Your task to perform on an android device: Go to ESPN.com Image 0: 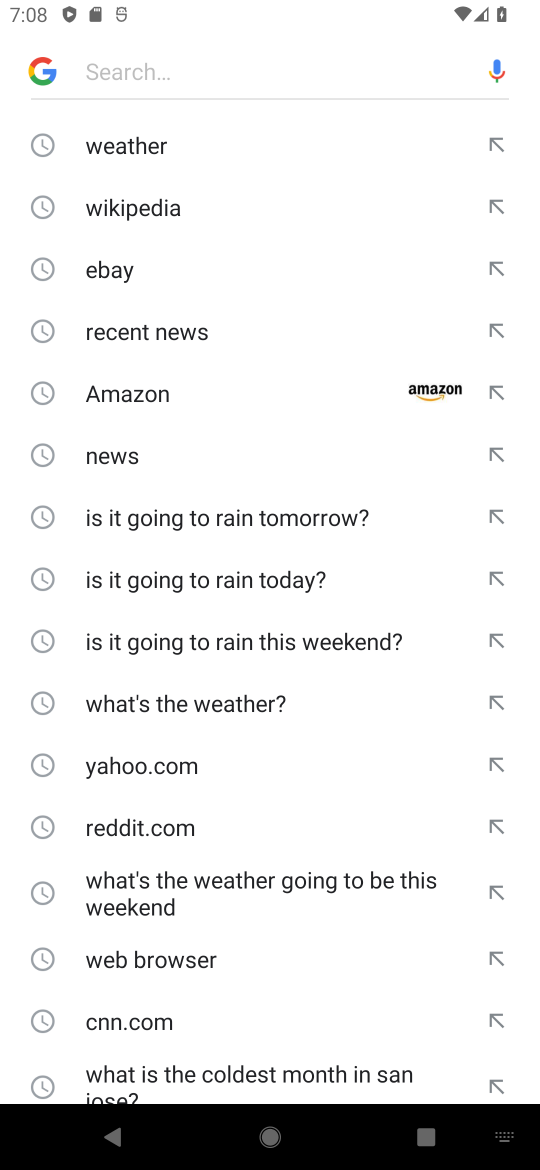
Step 0: press home button
Your task to perform on an android device: Go to ESPN.com Image 1: 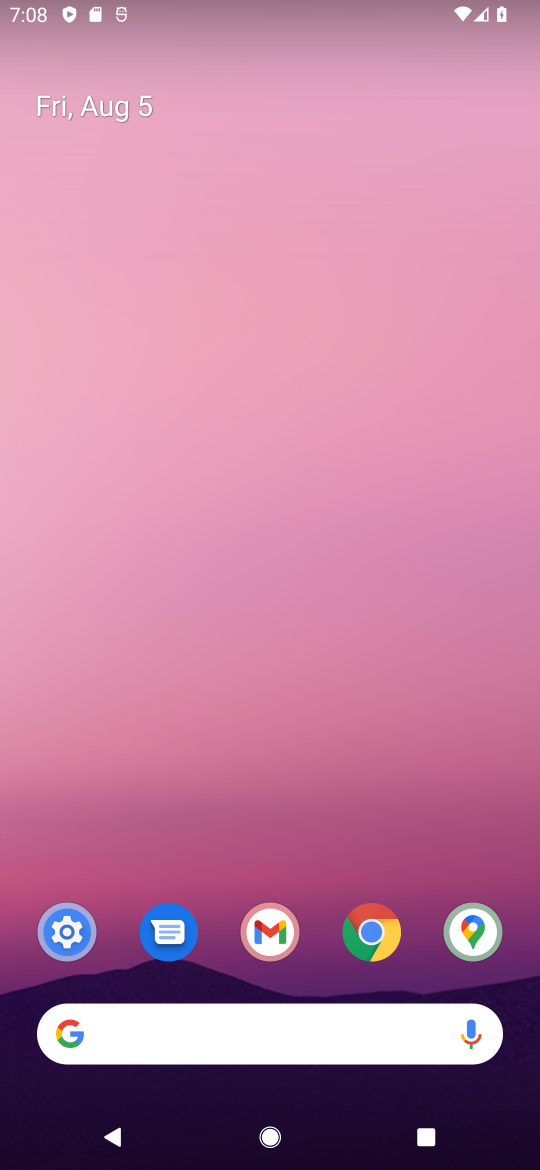
Step 1: drag from (386, 855) to (422, 244)
Your task to perform on an android device: Go to ESPN.com Image 2: 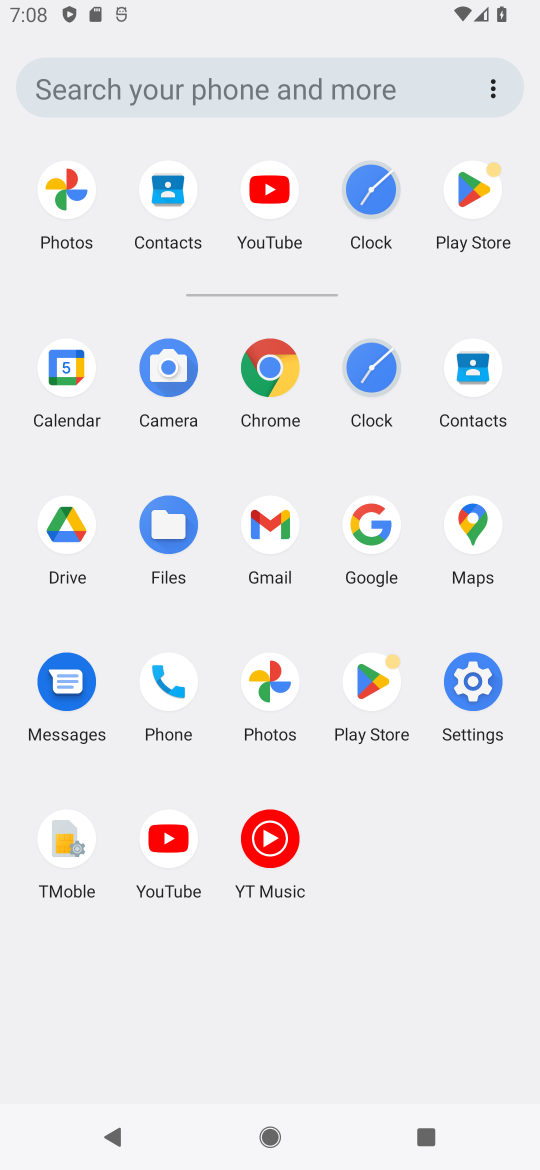
Step 2: click (266, 375)
Your task to perform on an android device: Go to ESPN.com Image 3: 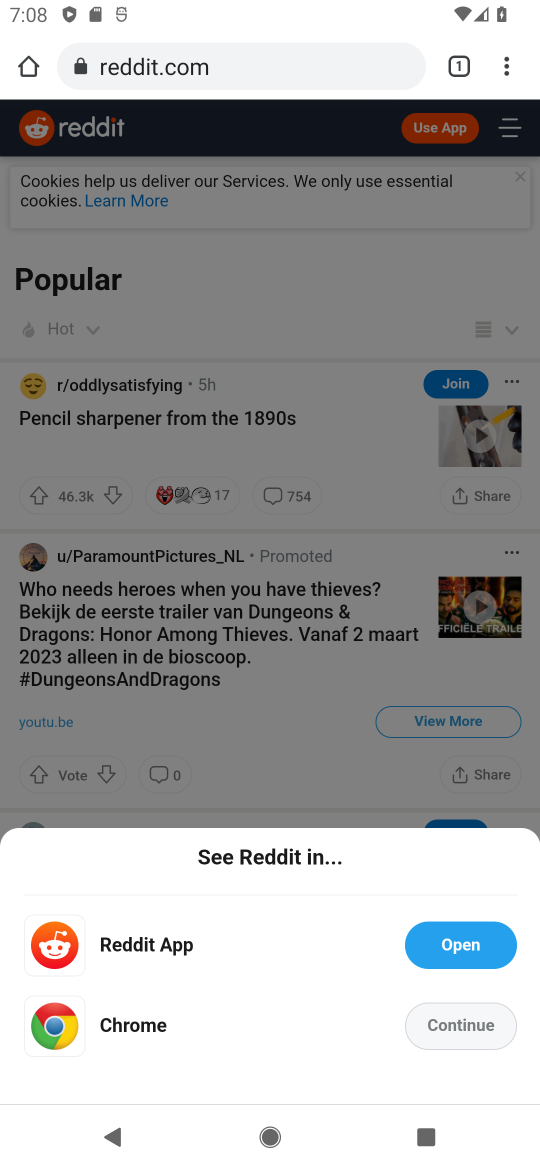
Step 3: click (257, 68)
Your task to perform on an android device: Go to ESPN.com Image 4: 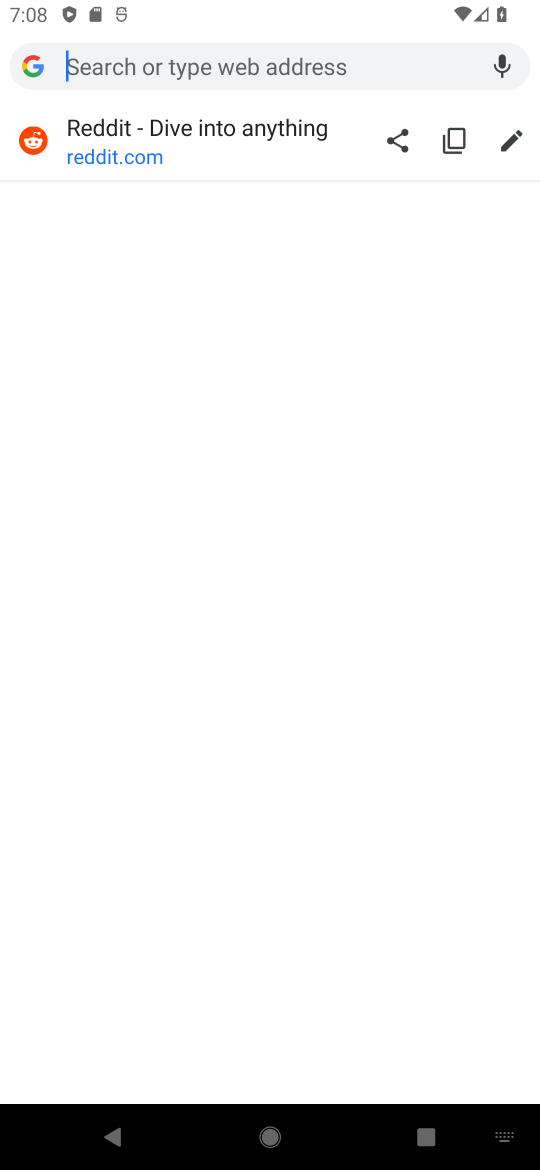
Step 4: type "espn.com"
Your task to perform on an android device: Go to ESPN.com Image 5: 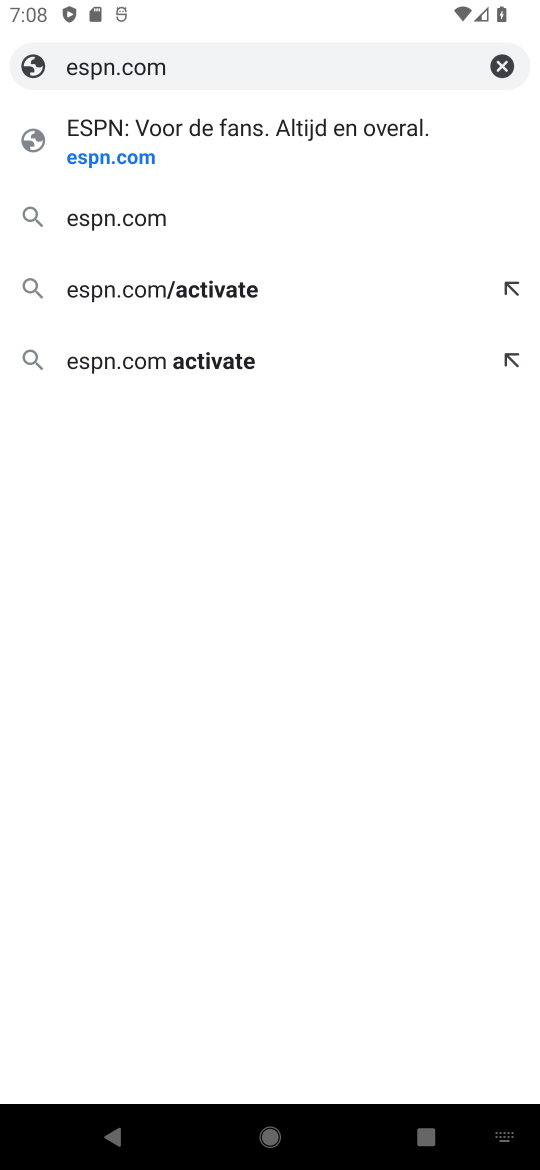
Step 5: click (167, 157)
Your task to perform on an android device: Go to ESPN.com Image 6: 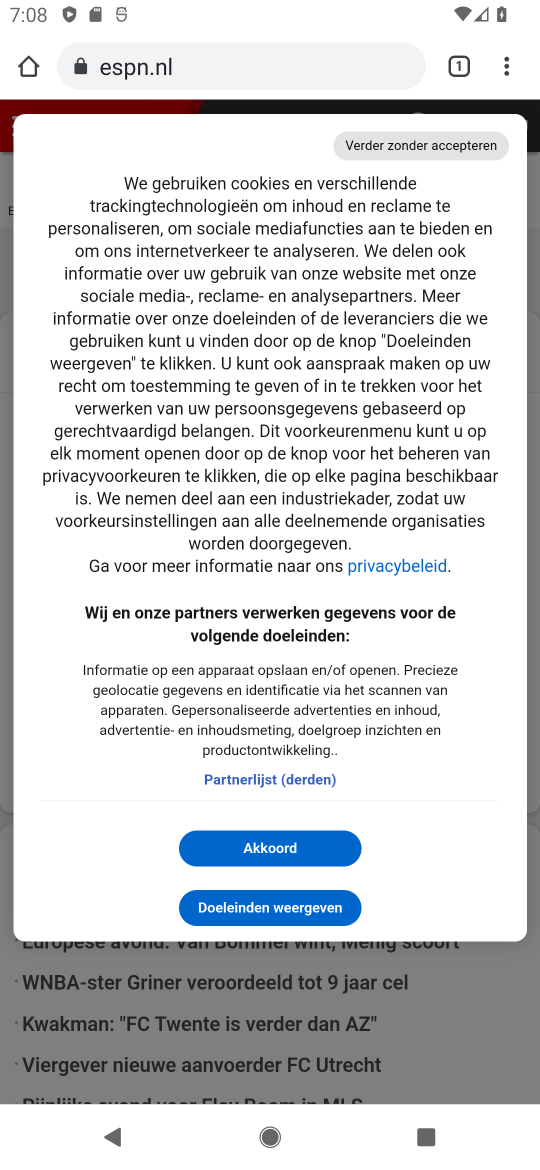
Step 6: task complete